Your task to perform on an android device: turn off translation in the chrome app Image 0: 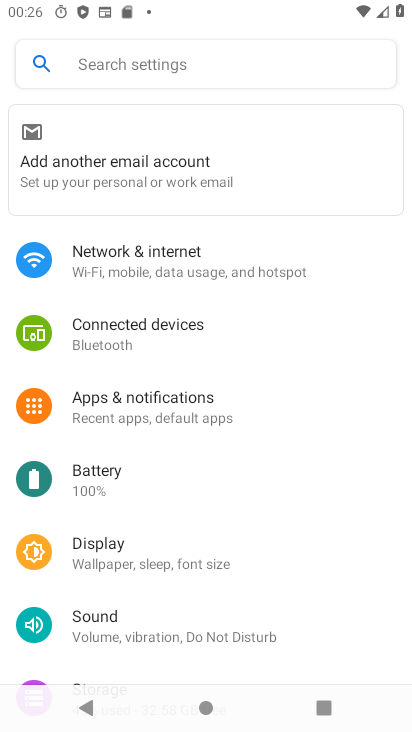
Step 0: press home button
Your task to perform on an android device: turn off translation in the chrome app Image 1: 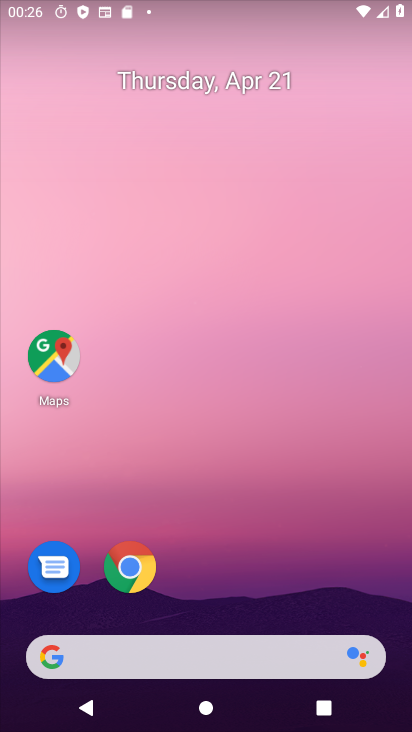
Step 1: drag from (207, 599) to (289, 93)
Your task to perform on an android device: turn off translation in the chrome app Image 2: 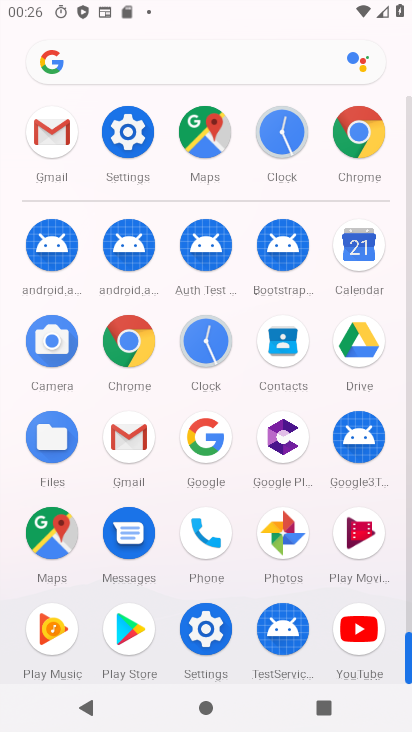
Step 2: click (346, 130)
Your task to perform on an android device: turn off translation in the chrome app Image 3: 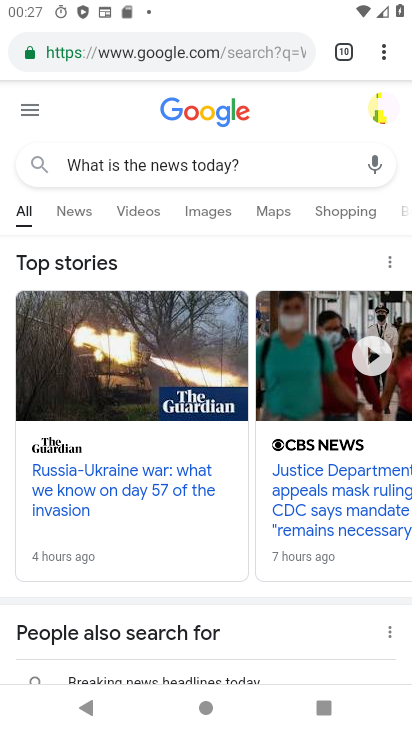
Step 3: click (370, 50)
Your task to perform on an android device: turn off translation in the chrome app Image 4: 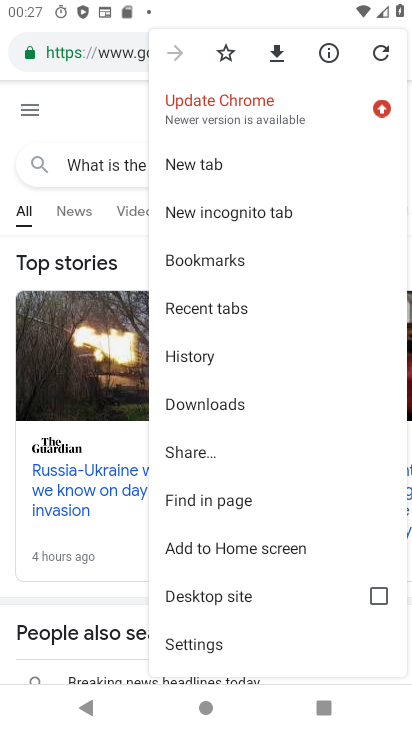
Step 4: click (218, 636)
Your task to perform on an android device: turn off translation in the chrome app Image 5: 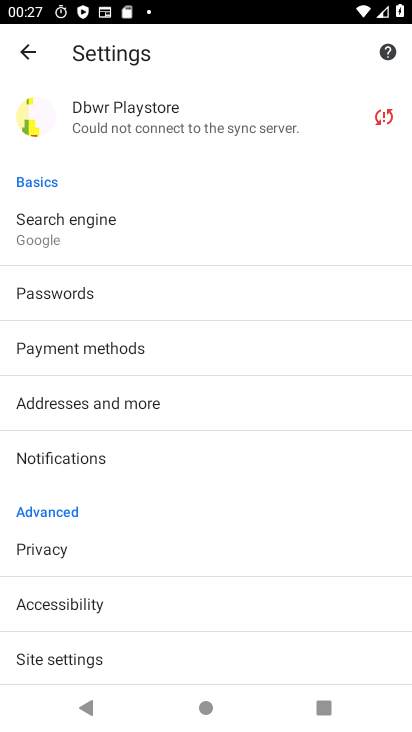
Step 5: drag from (173, 544) to (258, 256)
Your task to perform on an android device: turn off translation in the chrome app Image 6: 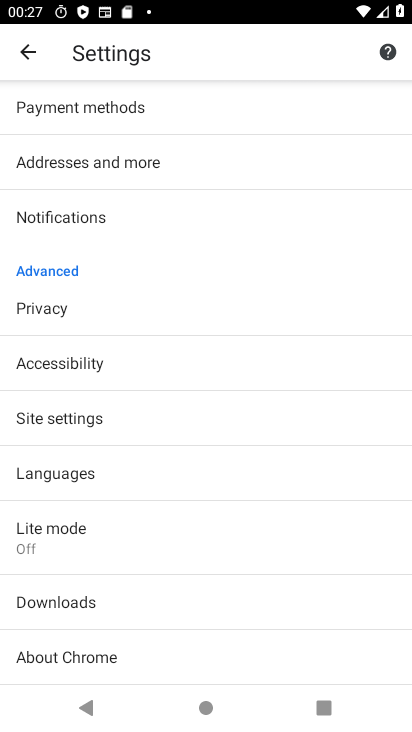
Step 6: click (92, 470)
Your task to perform on an android device: turn off translation in the chrome app Image 7: 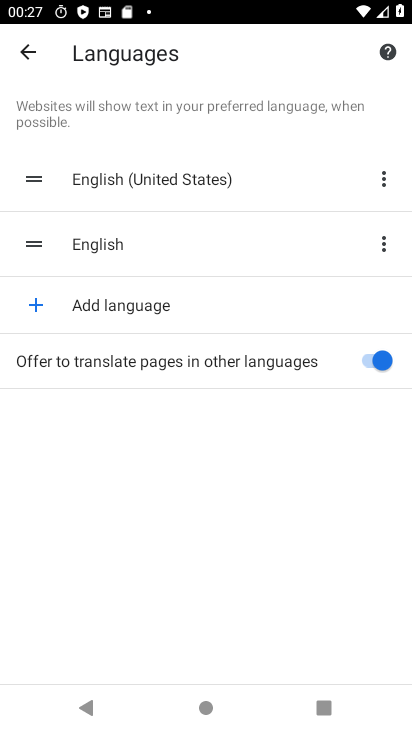
Step 7: click (369, 361)
Your task to perform on an android device: turn off translation in the chrome app Image 8: 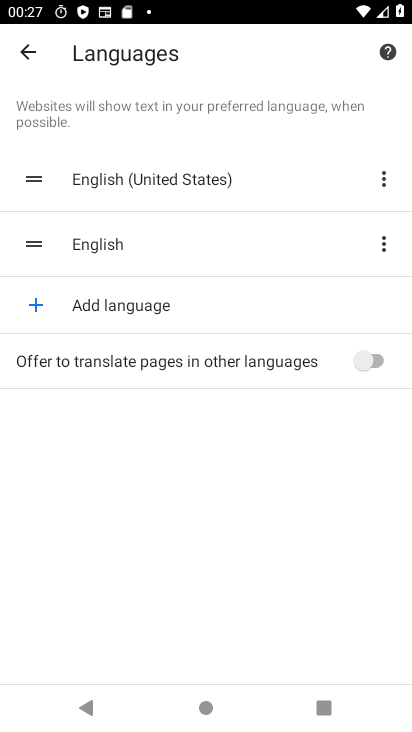
Step 8: task complete